Your task to perform on an android device: change notification settings in the gmail app Image 0: 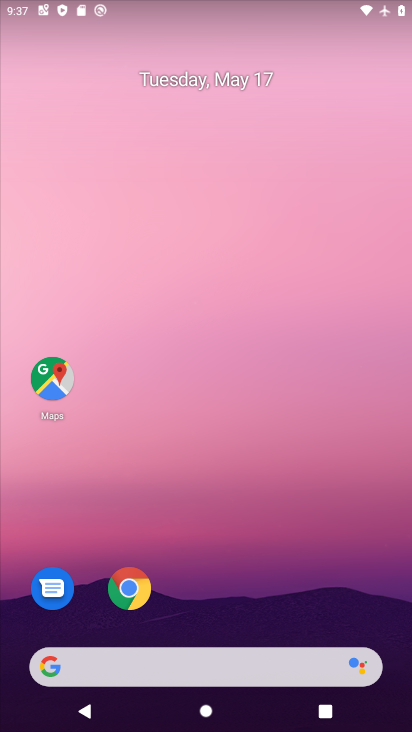
Step 0: drag from (233, 640) to (160, 84)
Your task to perform on an android device: change notification settings in the gmail app Image 1: 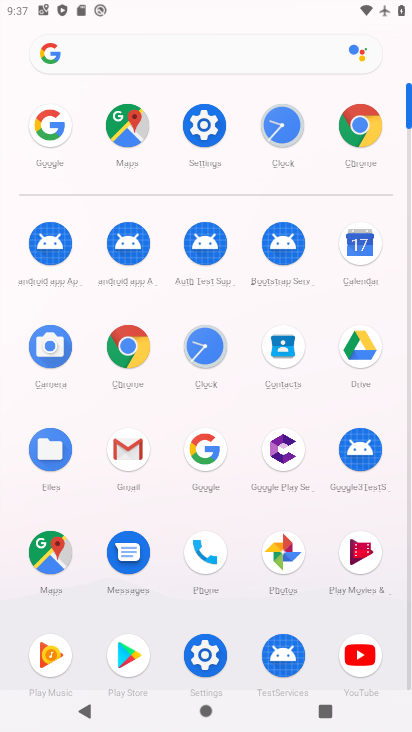
Step 1: click (126, 467)
Your task to perform on an android device: change notification settings in the gmail app Image 2: 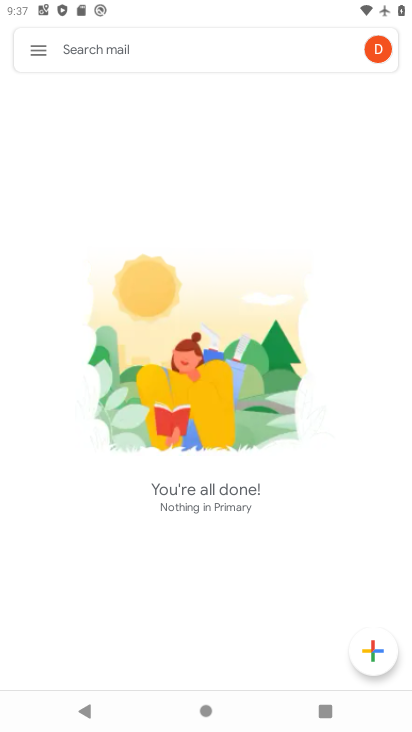
Step 2: click (33, 48)
Your task to perform on an android device: change notification settings in the gmail app Image 3: 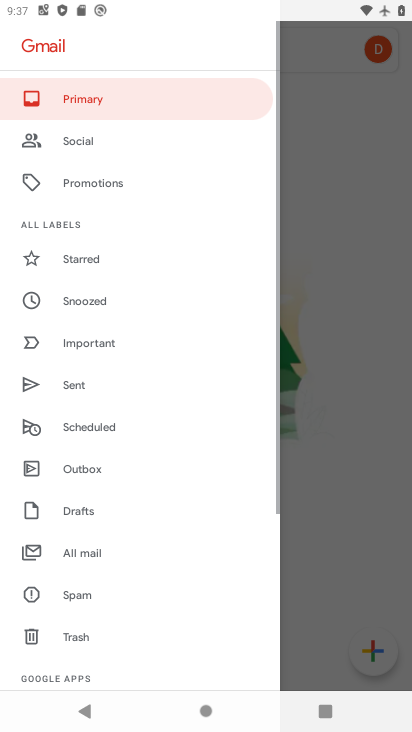
Step 3: drag from (107, 628) to (82, 108)
Your task to perform on an android device: change notification settings in the gmail app Image 4: 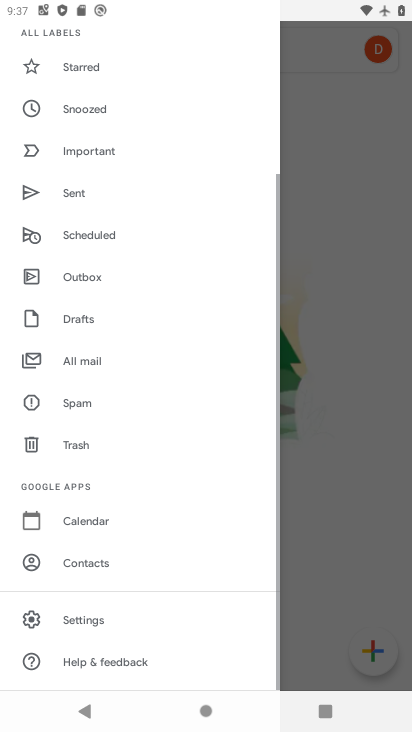
Step 4: click (82, 621)
Your task to perform on an android device: change notification settings in the gmail app Image 5: 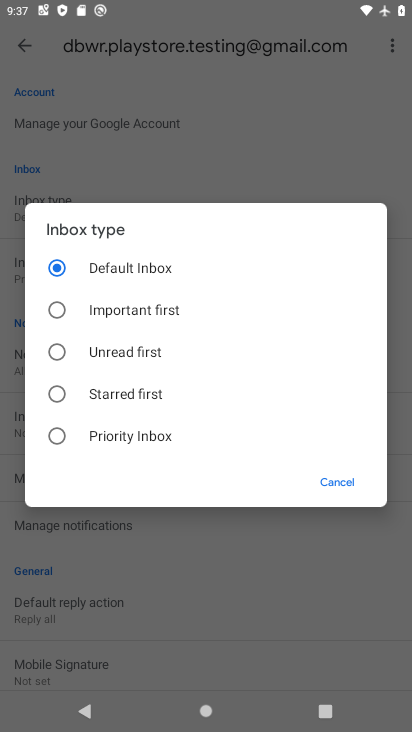
Step 5: click (31, 38)
Your task to perform on an android device: change notification settings in the gmail app Image 6: 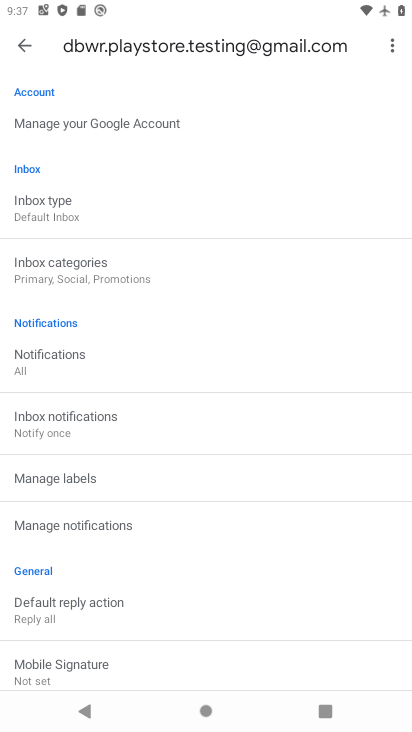
Step 6: click (28, 38)
Your task to perform on an android device: change notification settings in the gmail app Image 7: 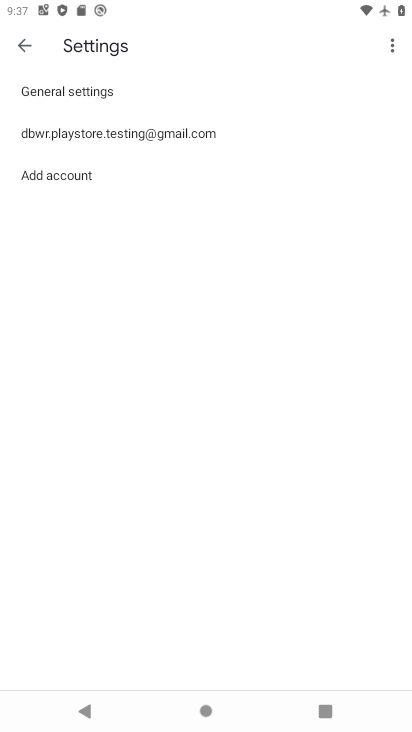
Step 7: click (62, 83)
Your task to perform on an android device: change notification settings in the gmail app Image 8: 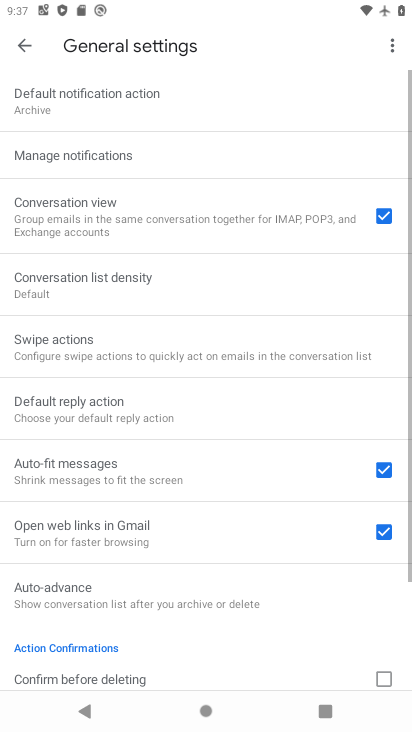
Step 8: click (72, 135)
Your task to perform on an android device: change notification settings in the gmail app Image 9: 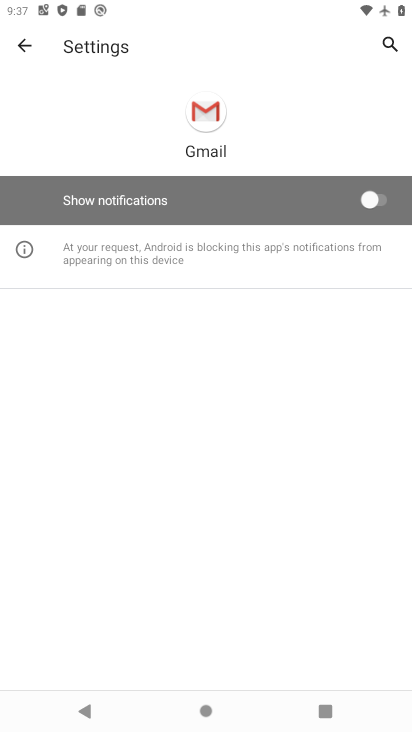
Step 9: click (388, 205)
Your task to perform on an android device: change notification settings in the gmail app Image 10: 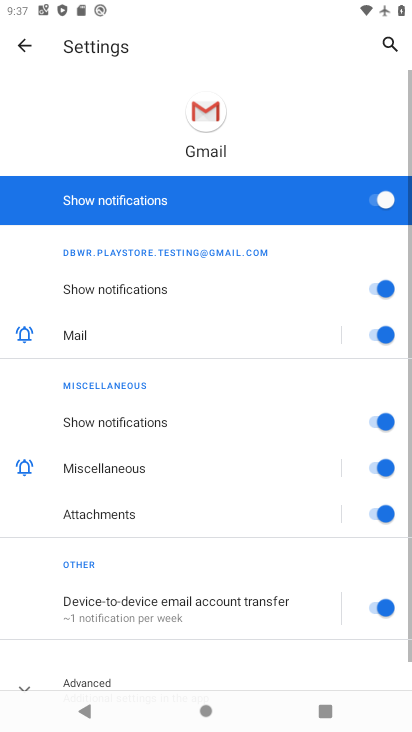
Step 10: task complete